Your task to perform on an android device: turn smart compose on in the gmail app Image 0: 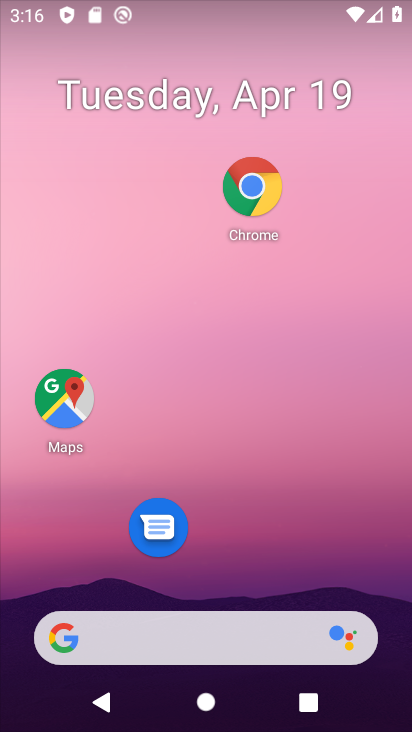
Step 0: drag from (265, 577) to (277, 187)
Your task to perform on an android device: turn smart compose on in the gmail app Image 1: 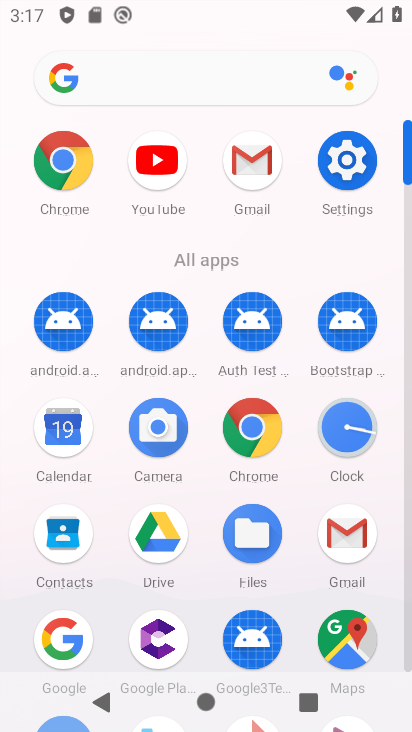
Step 1: click (348, 520)
Your task to perform on an android device: turn smart compose on in the gmail app Image 2: 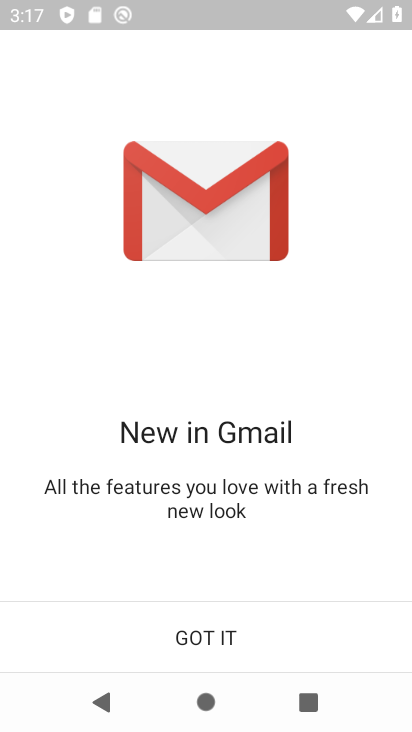
Step 2: click (193, 624)
Your task to perform on an android device: turn smart compose on in the gmail app Image 3: 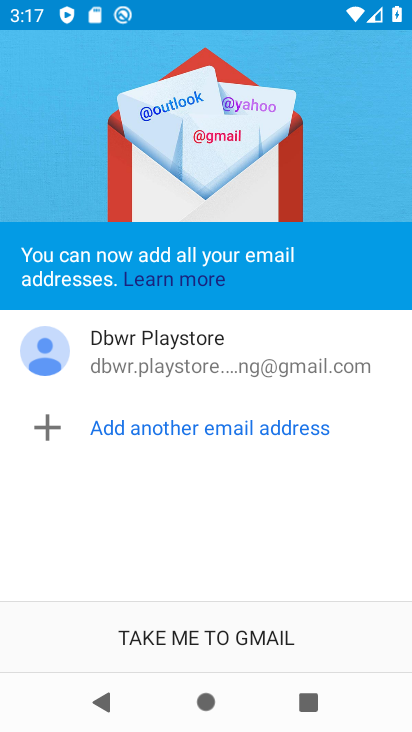
Step 3: click (193, 624)
Your task to perform on an android device: turn smart compose on in the gmail app Image 4: 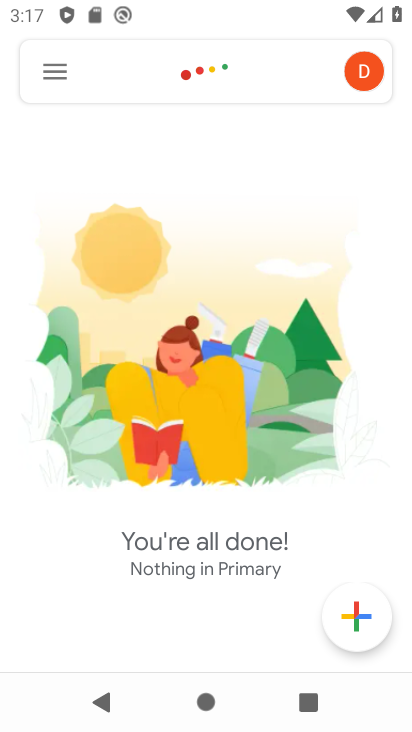
Step 4: click (54, 75)
Your task to perform on an android device: turn smart compose on in the gmail app Image 5: 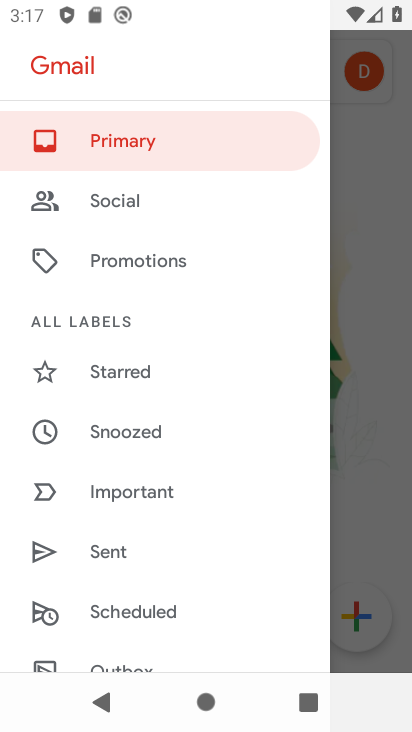
Step 5: drag from (161, 468) to (137, 5)
Your task to perform on an android device: turn smart compose on in the gmail app Image 6: 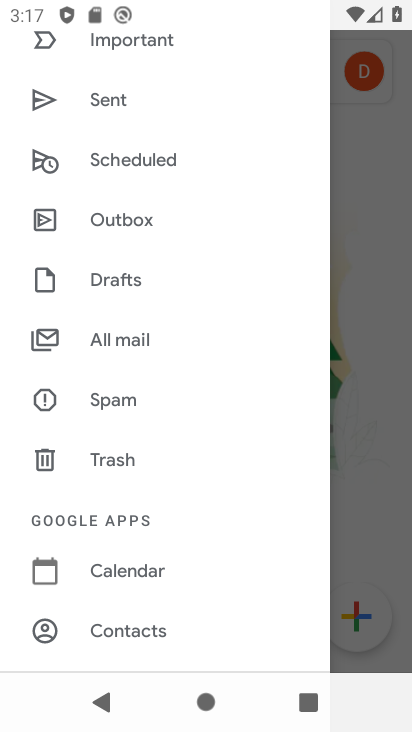
Step 6: drag from (149, 548) to (159, 163)
Your task to perform on an android device: turn smart compose on in the gmail app Image 7: 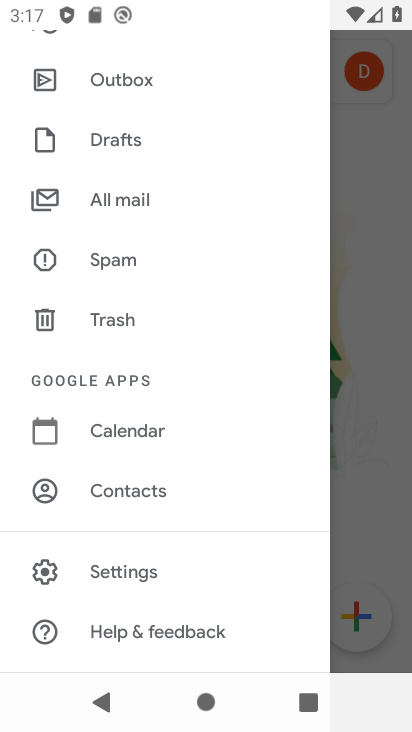
Step 7: click (142, 568)
Your task to perform on an android device: turn smart compose on in the gmail app Image 8: 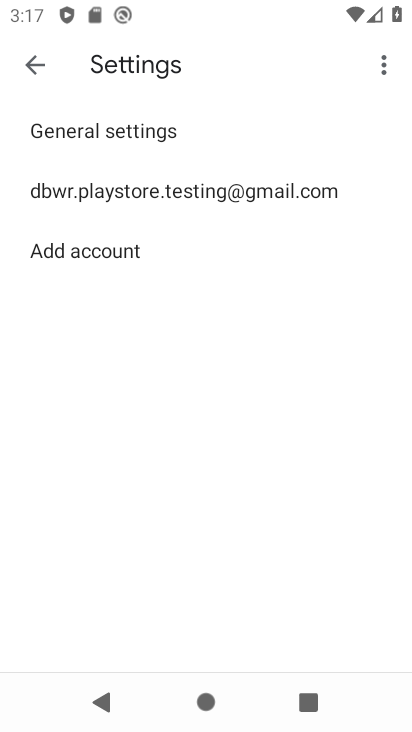
Step 8: click (169, 200)
Your task to perform on an android device: turn smart compose on in the gmail app Image 9: 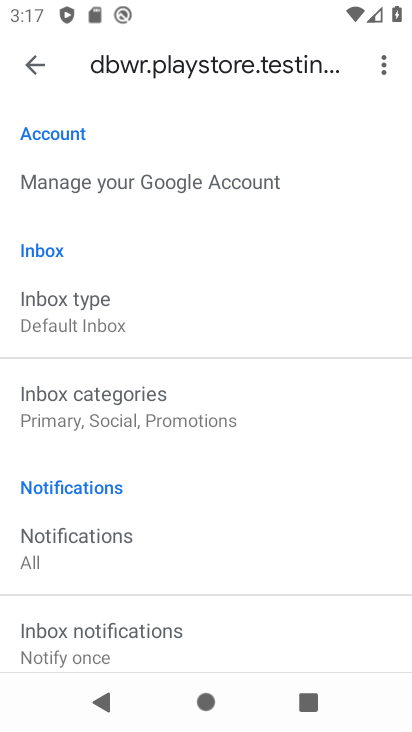
Step 9: task complete